Your task to perform on an android device: add a contact in the contacts app Image 0: 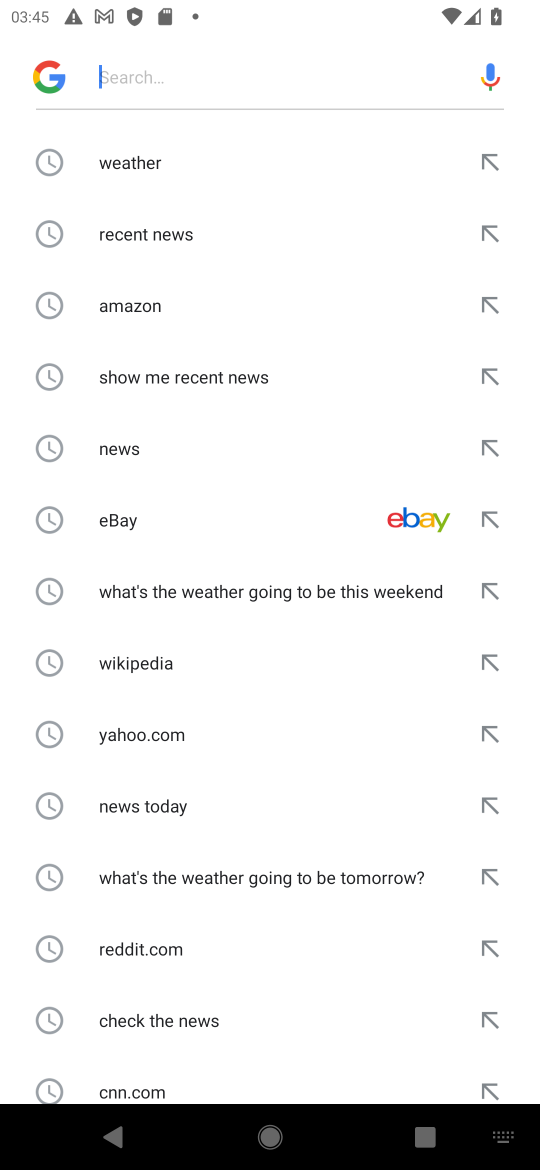
Step 0: press home button
Your task to perform on an android device: add a contact in the contacts app Image 1: 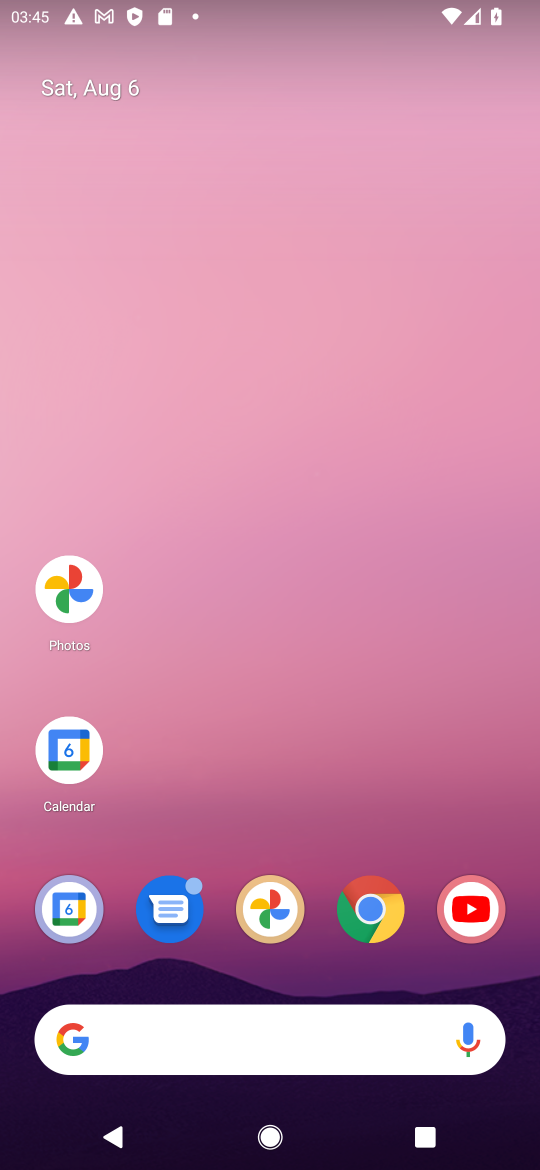
Step 1: drag from (262, 814) to (367, 138)
Your task to perform on an android device: add a contact in the contacts app Image 2: 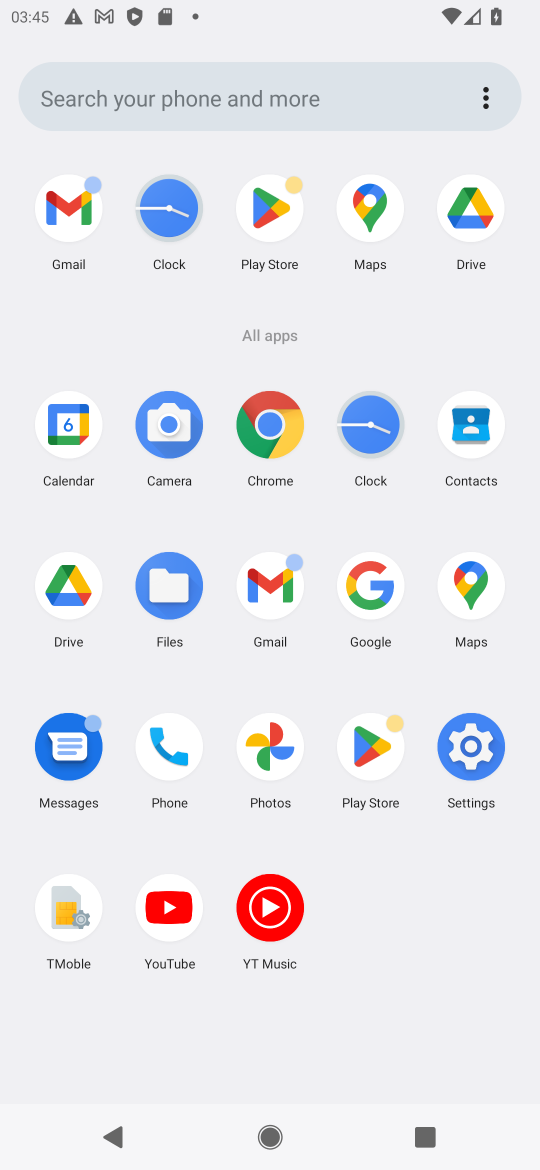
Step 2: click (481, 421)
Your task to perform on an android device: add a contact in the contacts app Image 3: 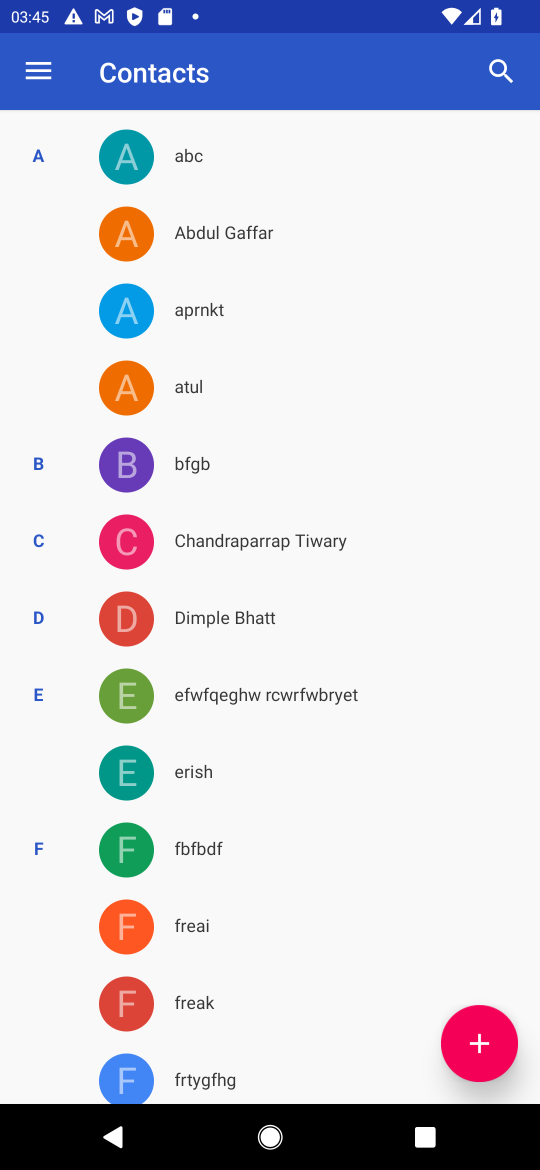
Step 3: click (482, 1053)
Your task to perform on an android device: add a contact in the contacts app Image 4: 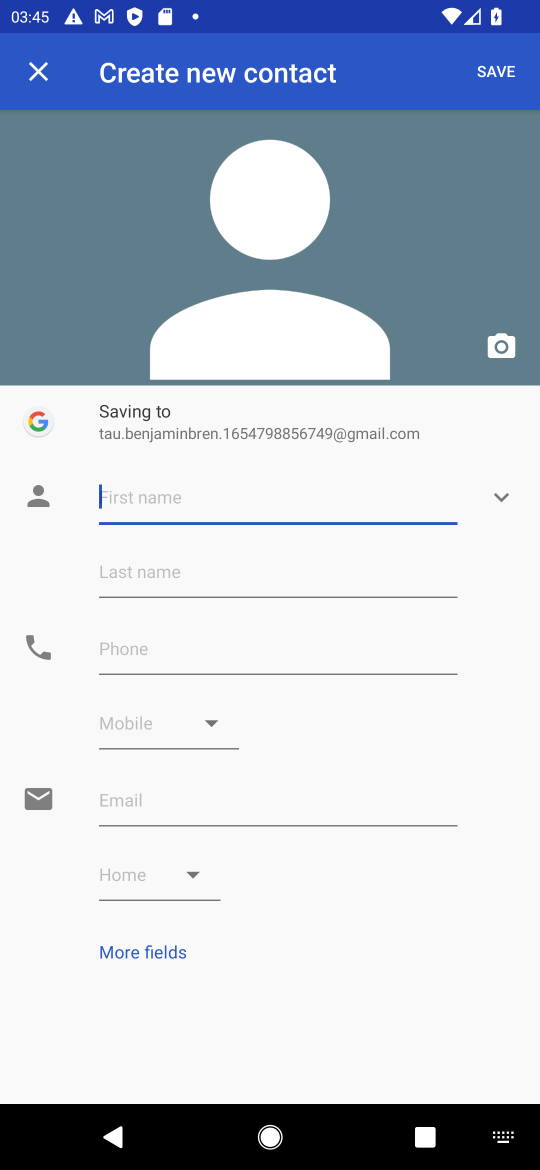
Step 4: type "g"
Your task to perform on an android device: add a contact in the contacts app Image 5: 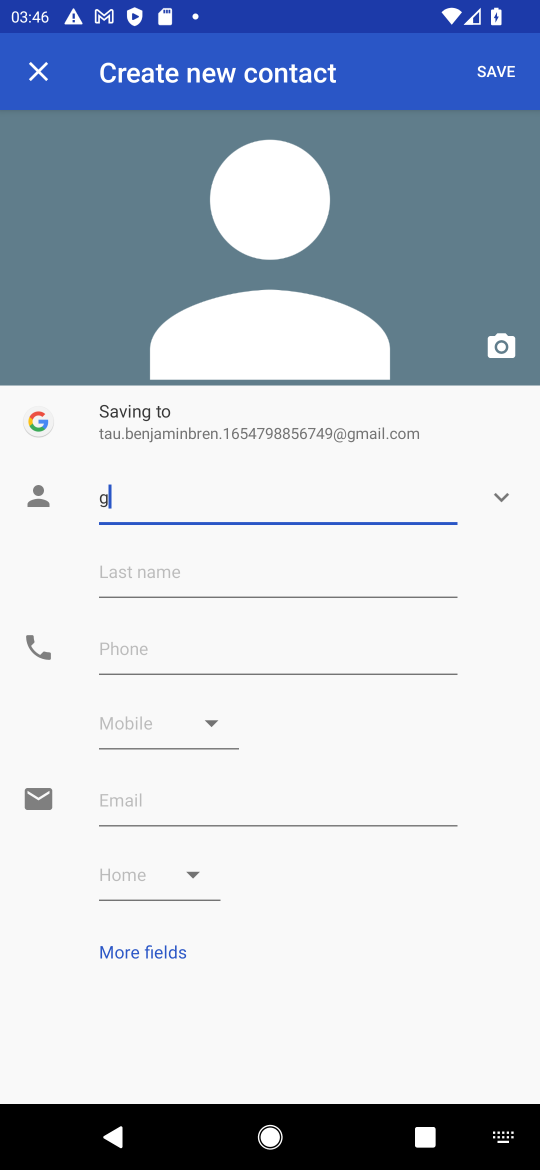
Step 5: click (164, 639)
Your task to perform on an android device: add a contact in the contacts app Image 6: 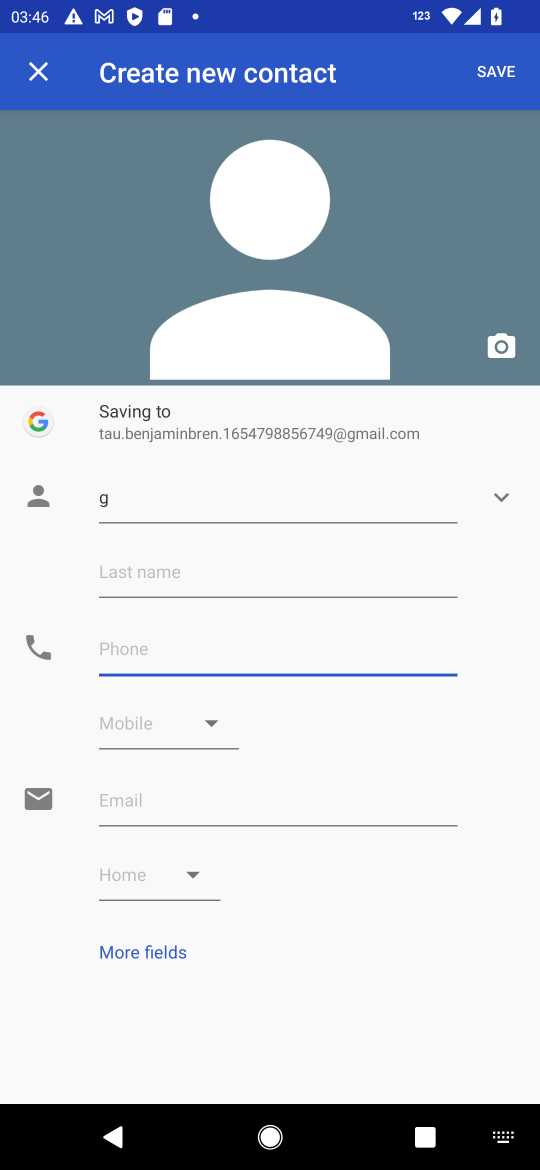
Step 6: type "8"
Your task to perform on an android device: add a contact in the contacts app Image 7: 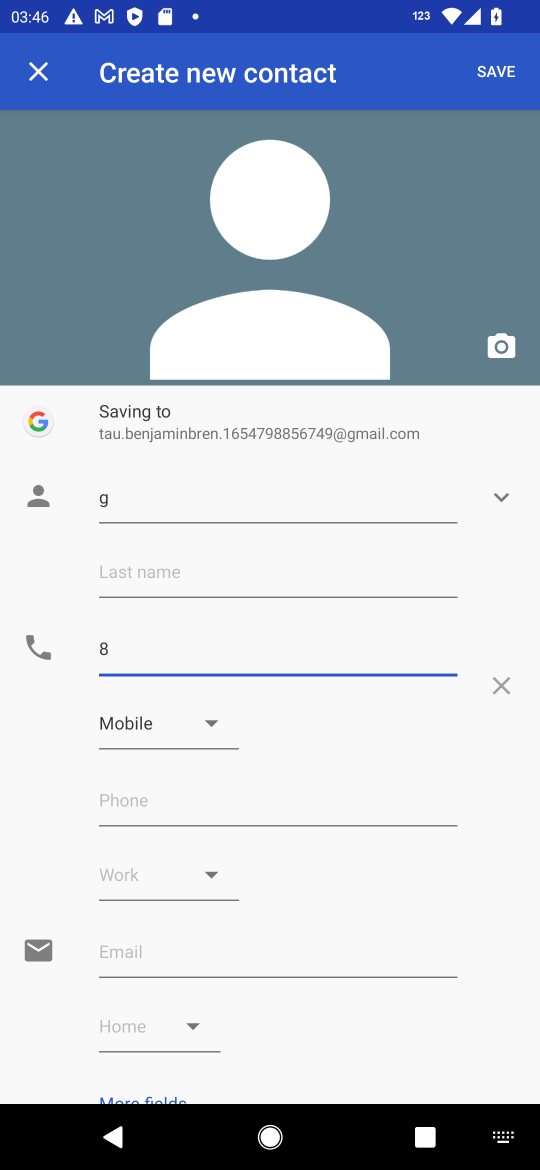
Step 7: click (489, 78)
Your task to perform on an android device: add a contact in the contacts app Image 8: 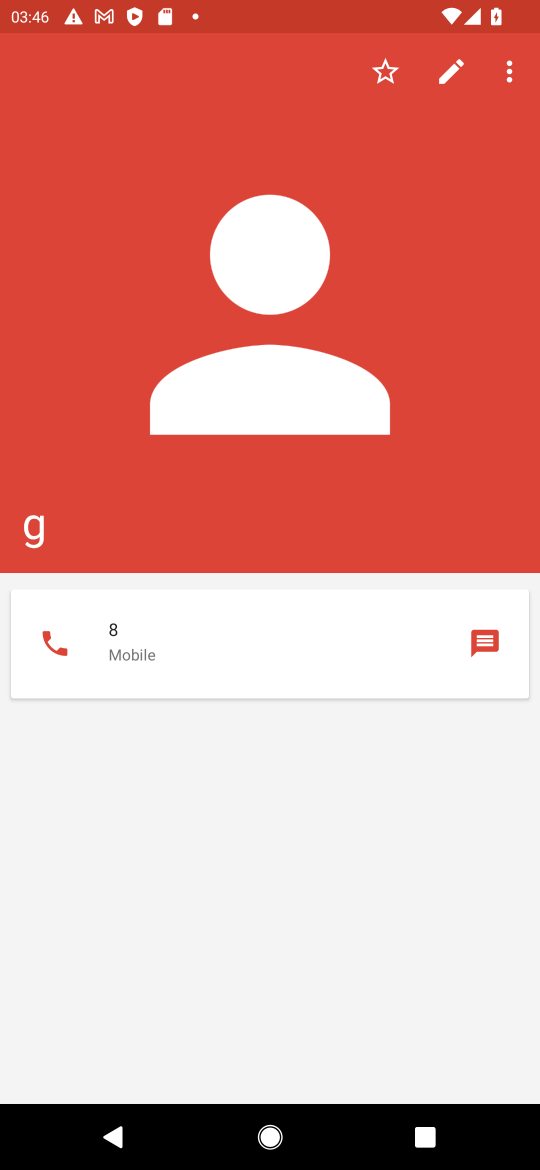
Step 8: task complete